Your task to perform on an android device: Show me popular videos on Youtube Image 0: 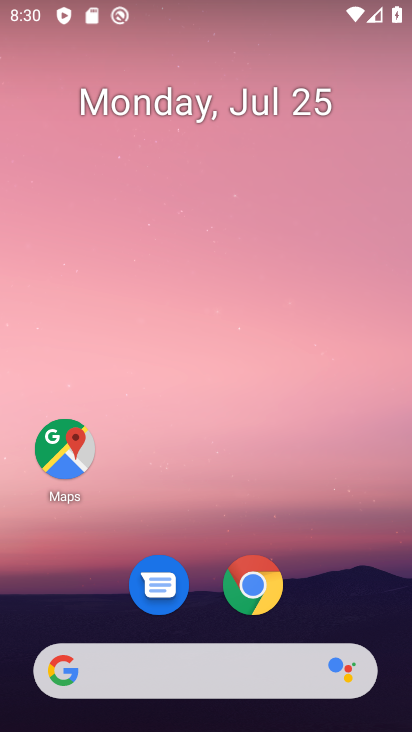
Step 0: drag from (192, 662) to (355, 212)
Your task to perform on an android device: Show me popular videos on Youtube Image 1: 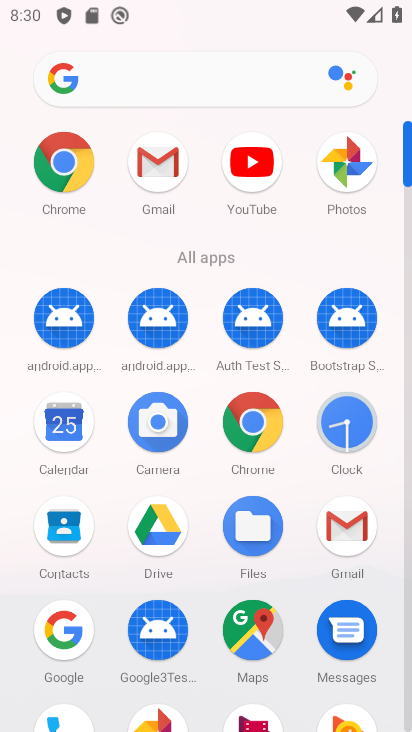
Step 1: drag from (285, 673) to (401, 259)
Your task to perform on an android device: Show me popular videos on Youtube Image 2: 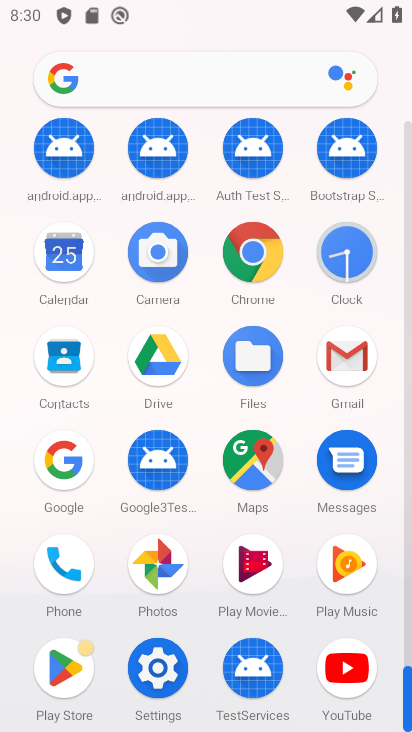
Step 2: click (340, 671)
Your task to perform on an android device: Show me popular videos on Youtube Image 3: 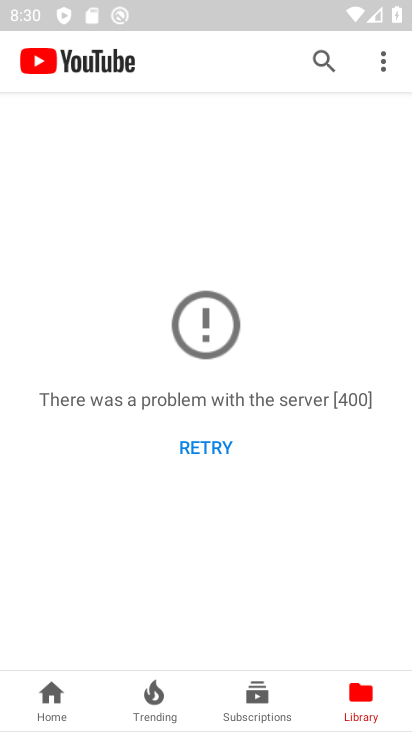
Step 3: click (223, 453)
Your task to perform on an android device: Show me popular videos on Youtube Image 4: 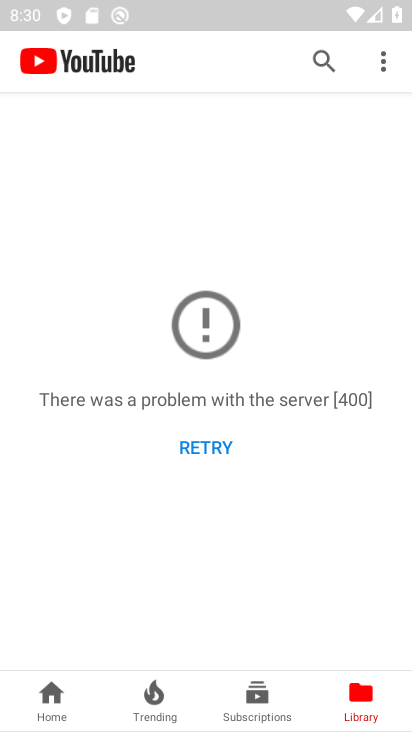
Step 4: click (219, 443)
Your task to perform on an android device: Show me popular videos on Youtube Image 5: 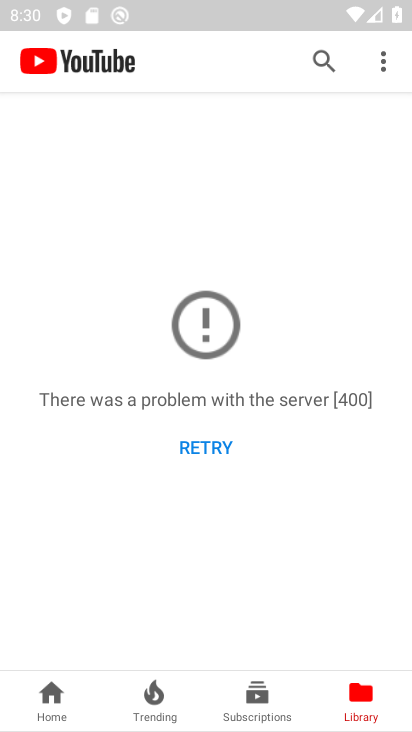
Step 5: task complete